Your task to perform on an android device: clear all cookies in the chrome app Image 0: 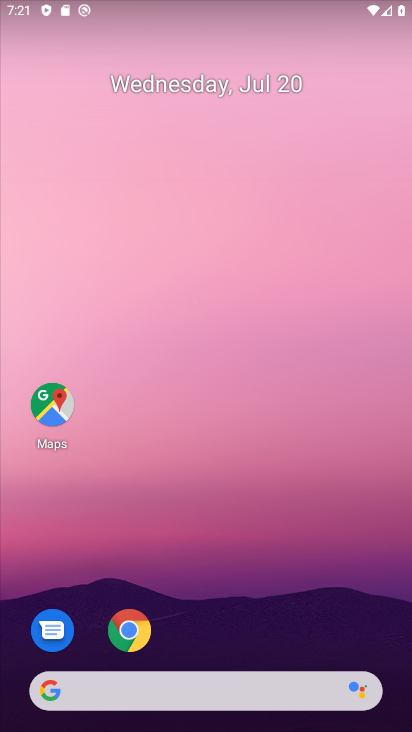
Step 0: click (129, 632)
Your task to perform on an android device: clear all cookies in the chrome app Image 1: 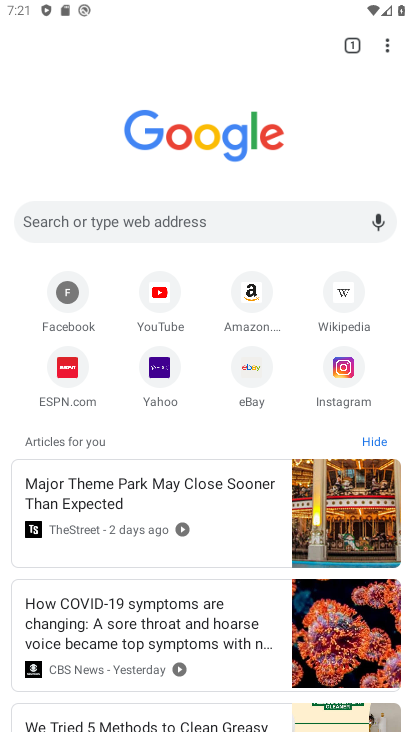
Step 1: click (388, 45)
Your task to perform on an android device: clear all cookies in the chrome app Image 2: 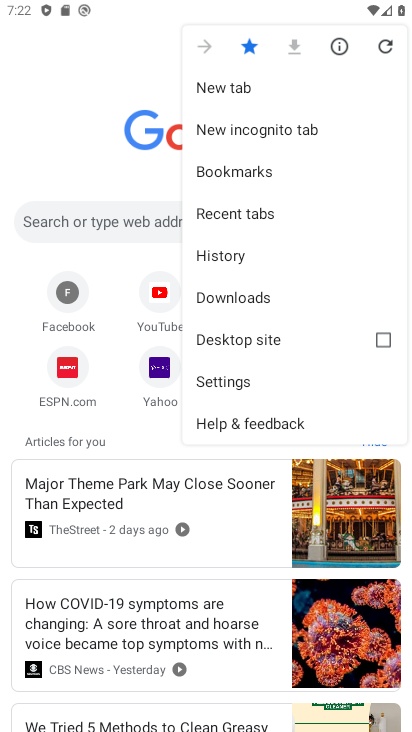
Step 2: click (231, 384)
Your task to perform on an android device: clear all cookies in the chrome app Image 3: 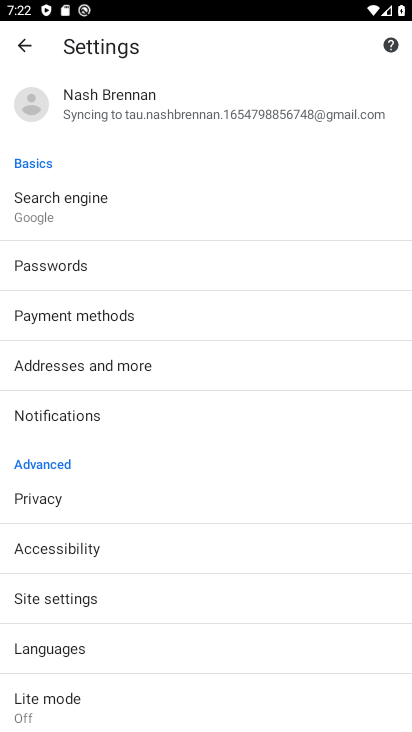
Step 3: drag from (120, 434) to (170, 369)
Your task to perform on an android device: clear all cookies in the chrome app Image 4: 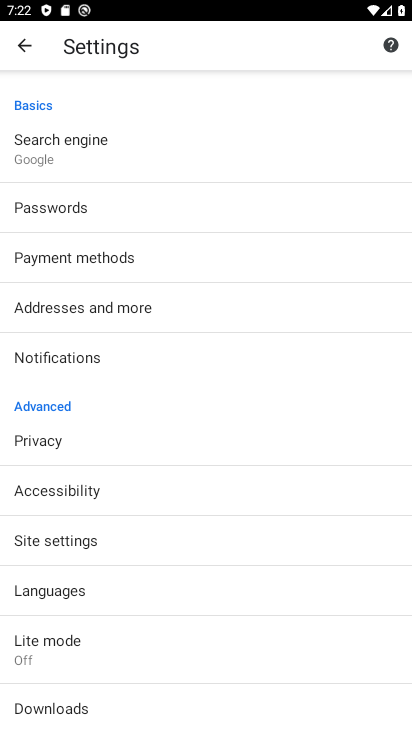
Step 4: click (34, 442)
Your task to perform on an android device: clear all cookies in the chrome app Image 5: 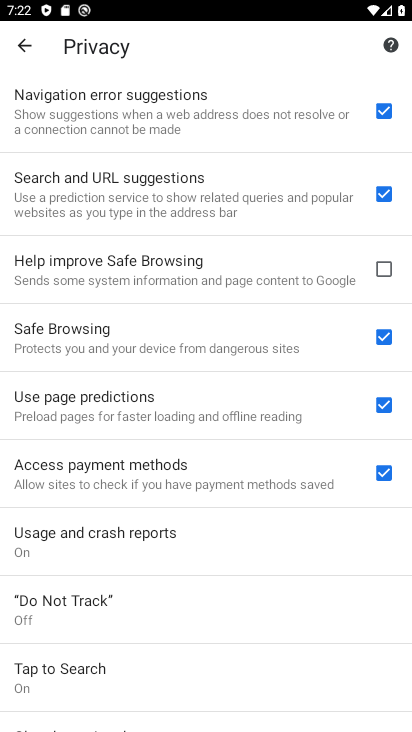
Step 5: drag from (91, 635) to (131, 497)
Your task to perform on an android device: clear all cookies in the chrome app Image 6: 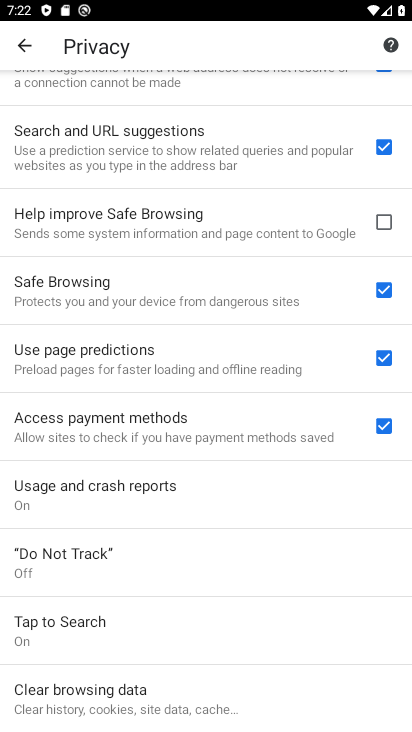
Step 6: click (112, 689)
Your task to perform on an android device: clear all cookies in the chrome app Image 7: 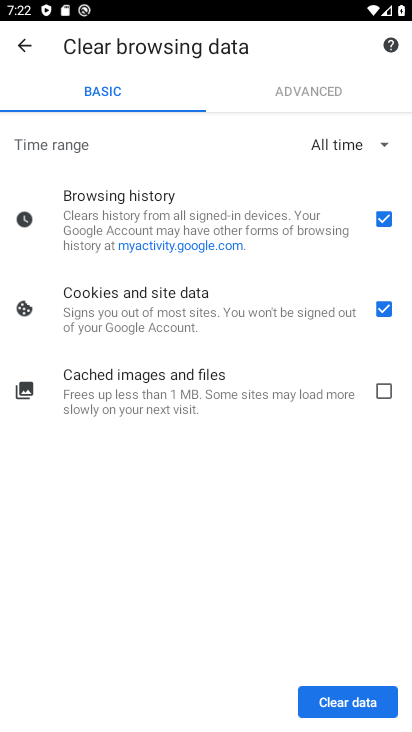
Step 7: click (381, 207)
Your task to perform on an android device: clear all cookies in the chrome app Image 8: 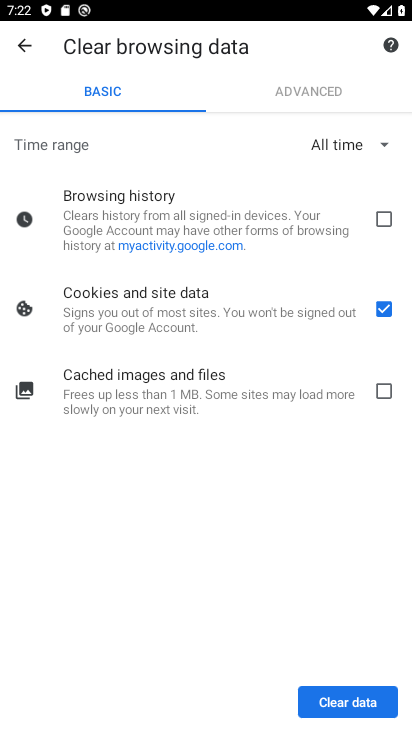
Step 8: click (340, 699)
Your task to perform on an android device: clear all cookies in the chrome app Image 9: 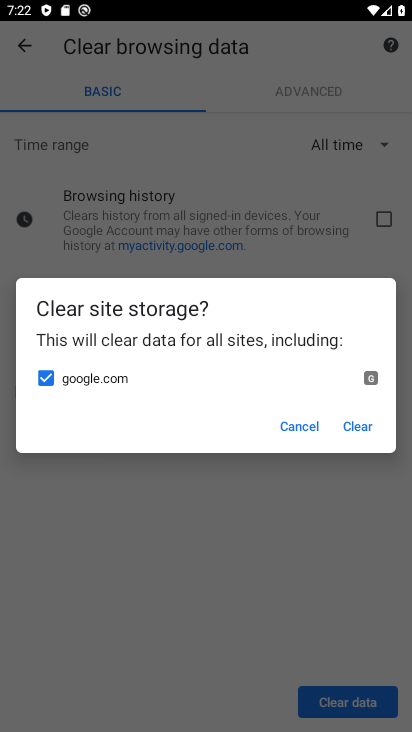
Step 9: click (357, 428)
Your task to perform on an android device: clear all cookies in the chrome app Image 10: 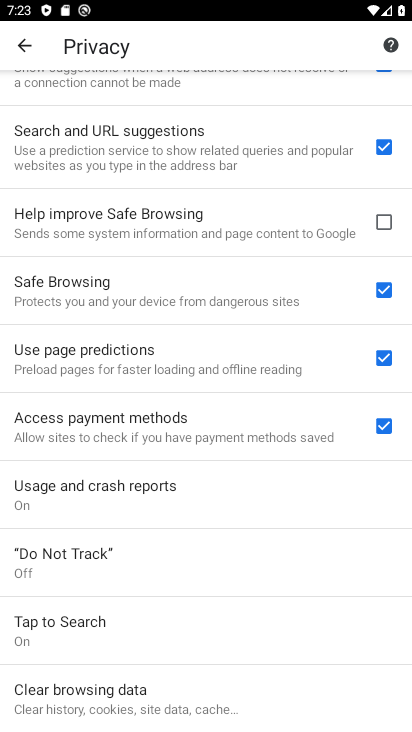
Step 10: task complete